Your task to perform on an android device: change text size in settings app Image 0: 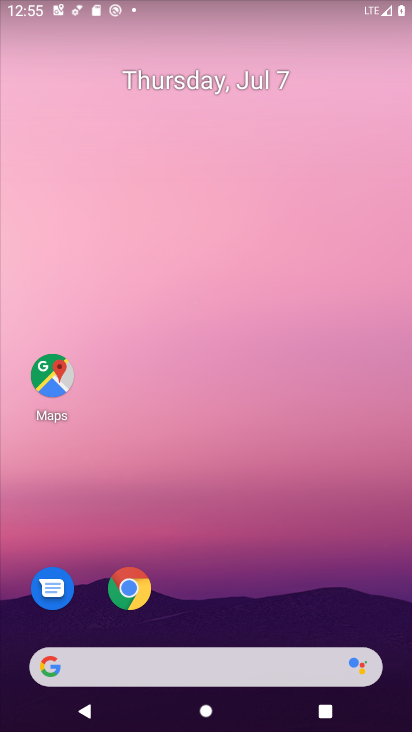
Step 0: drag from (217, 633) to (352, 109)
Your task to perform on an android device: change text size in settings app Image 1: 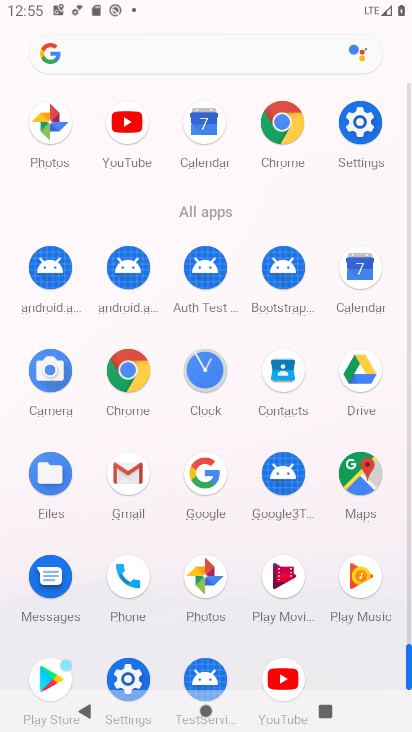
Step 1: click (358, 125)
Your task to perform on an android device: change text size in settings app Image 2: 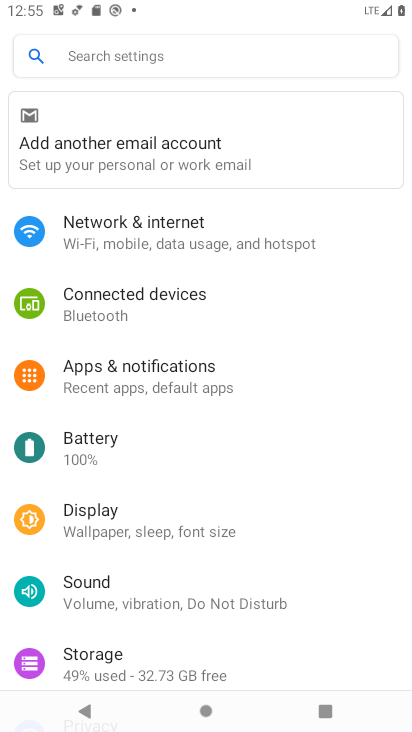
Step 2: drag from (145, 580) to (241, 182)
Your task to perform on an android device: change text size in settings app Image 3: 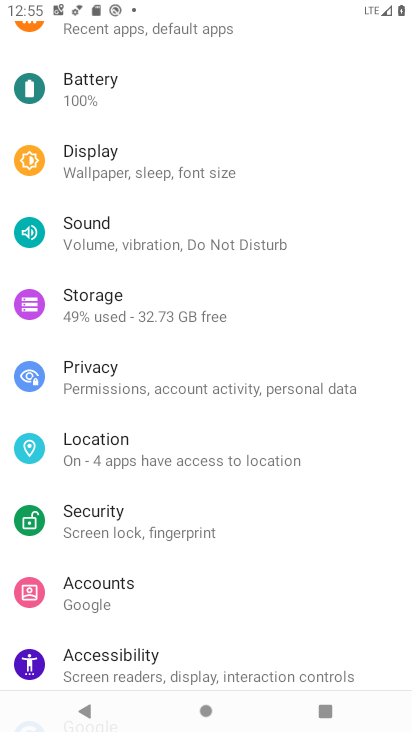
Step 3: click (144, 149)
Your task to perform on an android device: change text size in settings app Image 4: 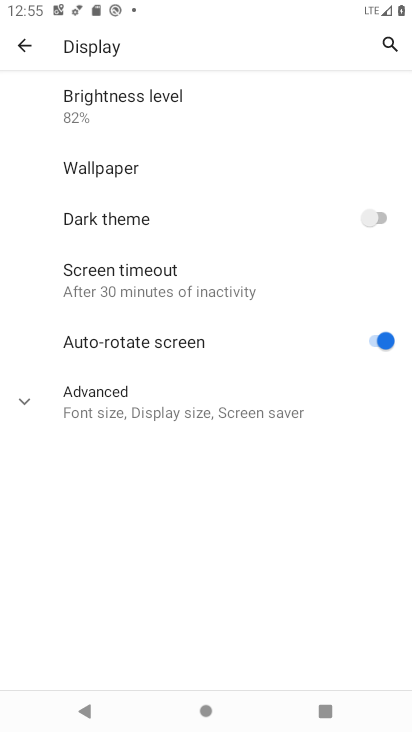
Step 4: click (133, 286)
Your task to perform on an android device: change text size in settings app Image 5: 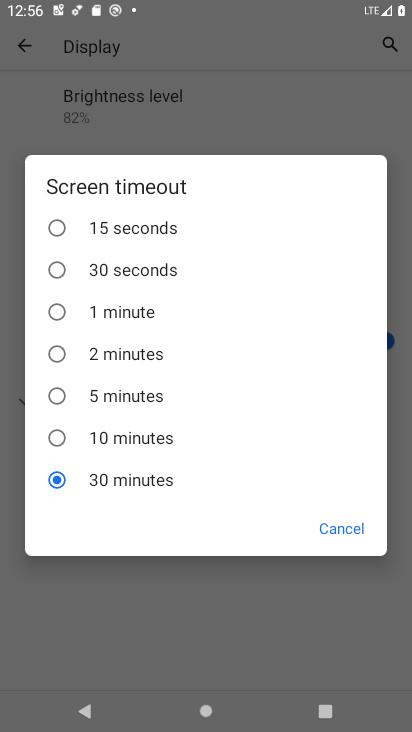
Step 5: click (67, 232)
Your task to perform on an android device: change text size in settings app Image 6: 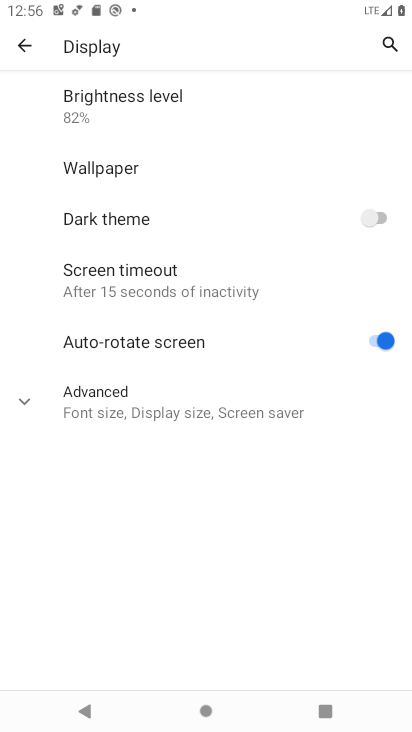
Step 6: task complete